Your task to perform on an android device: Do I have any events today? Image 0: 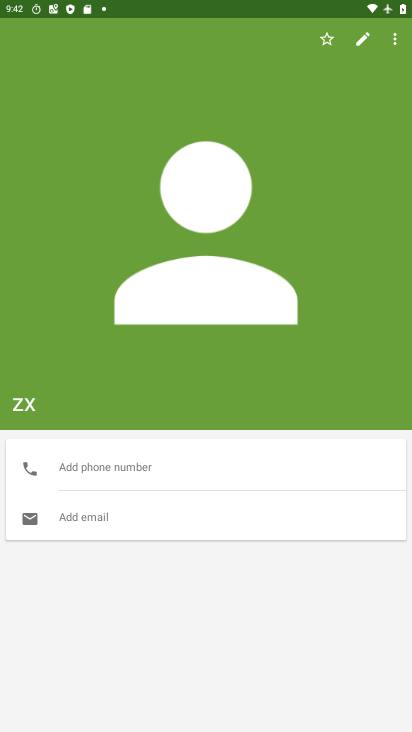
Step 0: press home button
Your task to perform on an android device: Do I have any events today? Image 1: 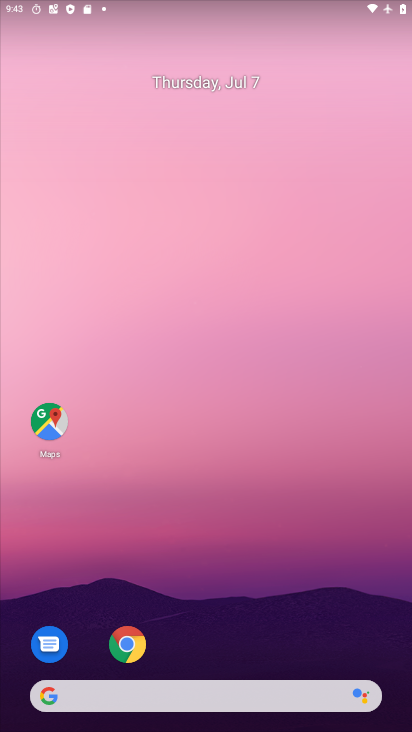
Step 1: drag from (270, 627) to (230, 166)
Your task to perform on an android device: Do I have any events today? Image 2: 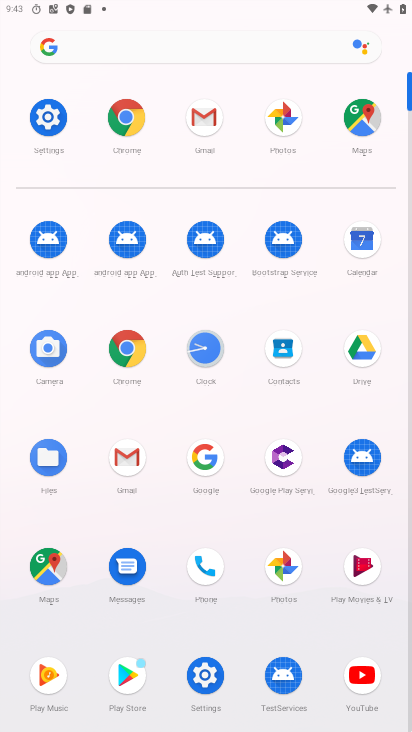
Step 2: click (364, 243)
Your task to perform on an android device: Do I have any events today? Image 3: 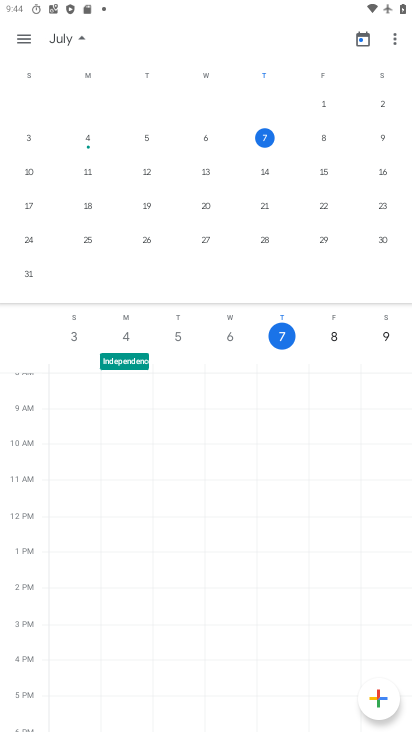
Step 3: click (263, 137)
Your task to perform on an android device: Do I have any events today? Image 4: 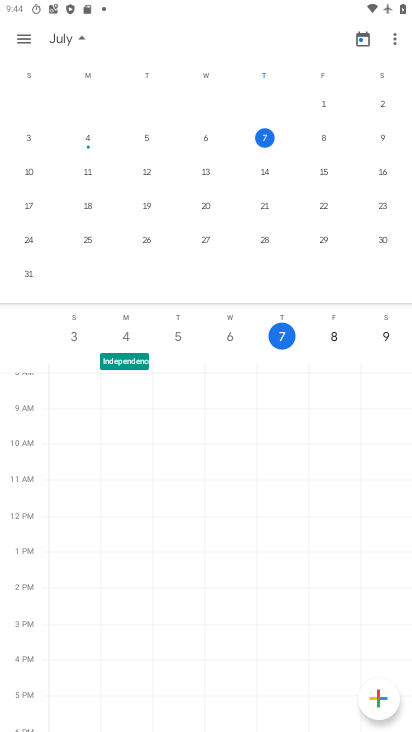
Step 4: task complete